Your task to perform on an android device: Open Google Chrome Image 0: 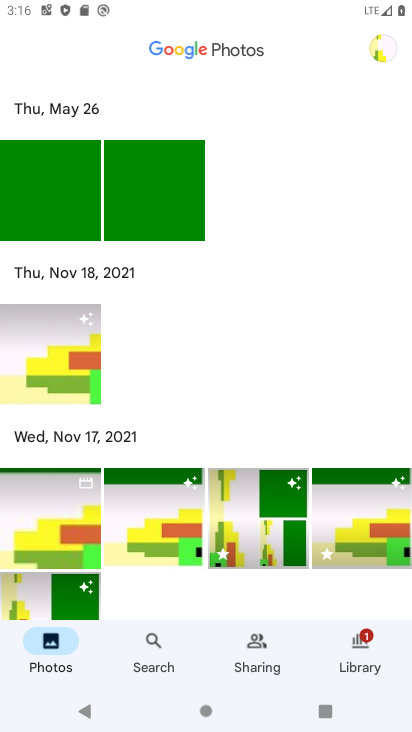
Step 0: press home button
Your task to perform on an android device: Open Google Chrome Image 1: 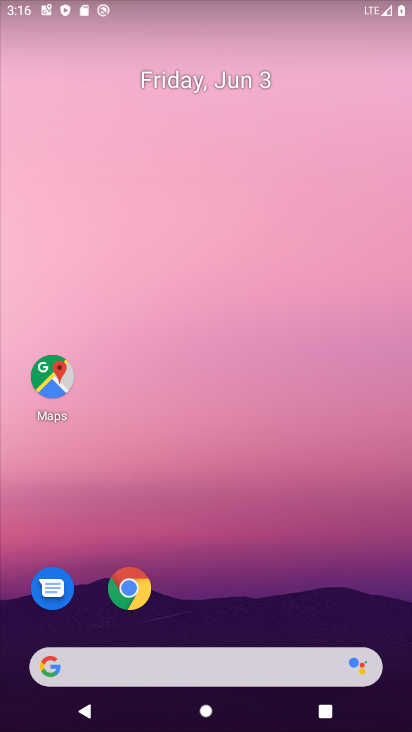
Step 1: click (129, 604)
Your task to perform on an android device: Open Google Chrome Image 2: 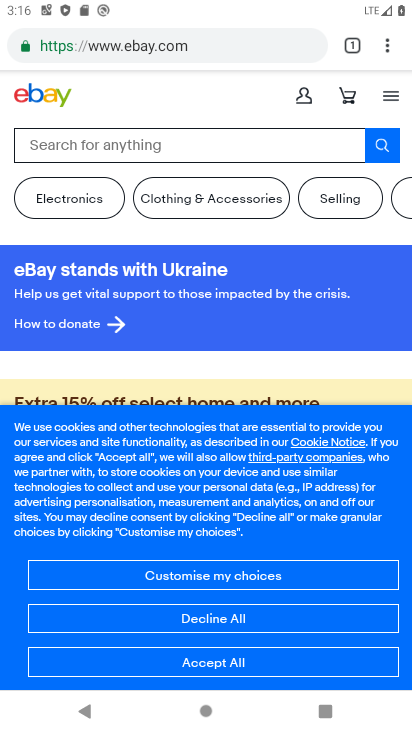
Step 2: click (359, 43)
Your task to perform on an android device: Open Google Chrome Image 3: 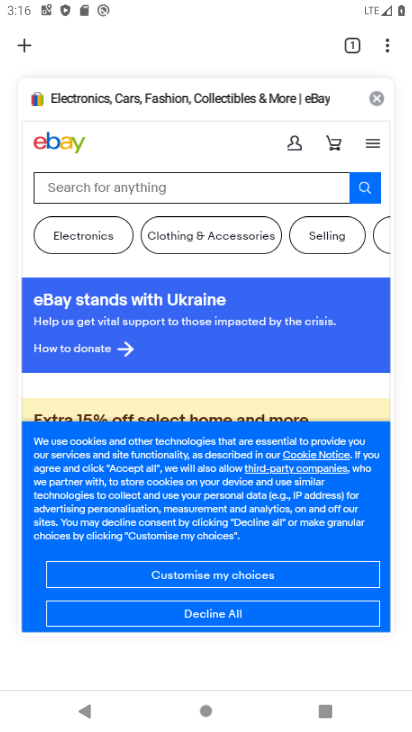
Step 3: click (375, 102)
Your task to perform on an android device: Open Google Chrome Image 4: 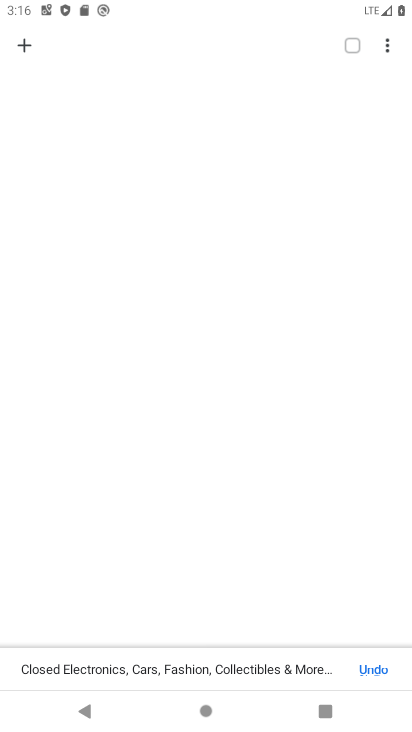
Step 4: click (21, 44)
Your task to perform on an android device: Open Google Chrome Image 5: 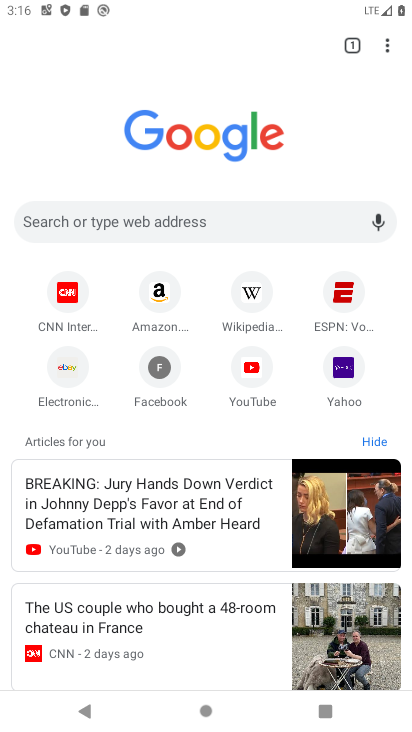
Step 5: task complete